Your task to perform on an android device: Go to Google maps Image 0: 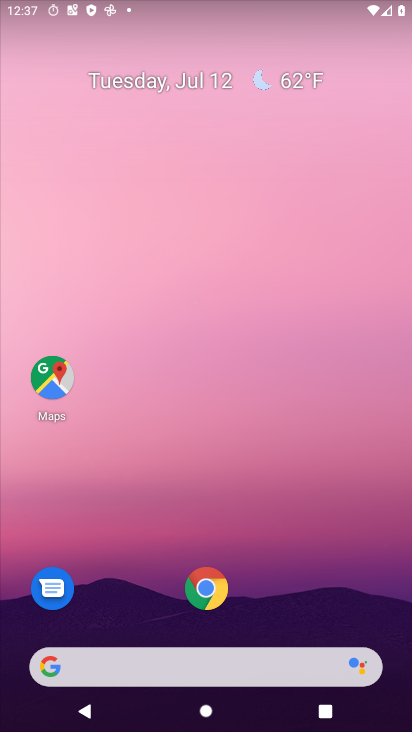
Step 0: click (186, 620)
Your task to perform on an android device: Go to Google maps Image 1: 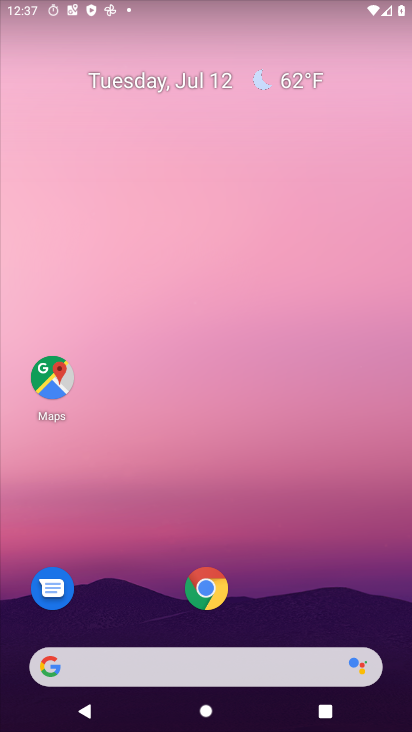
Step 1: click (98, 576)
Your task to perform on an android device: Go to Google maps Image 2: 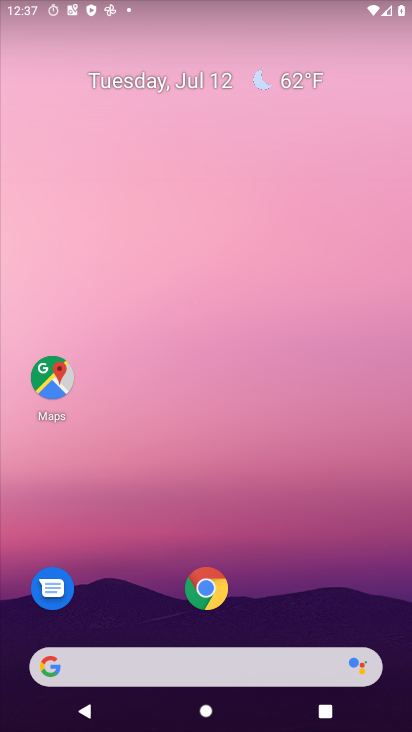
Step 2: click (45, 381)
Your task to perform on an android device: Go to Google maps Image 3: 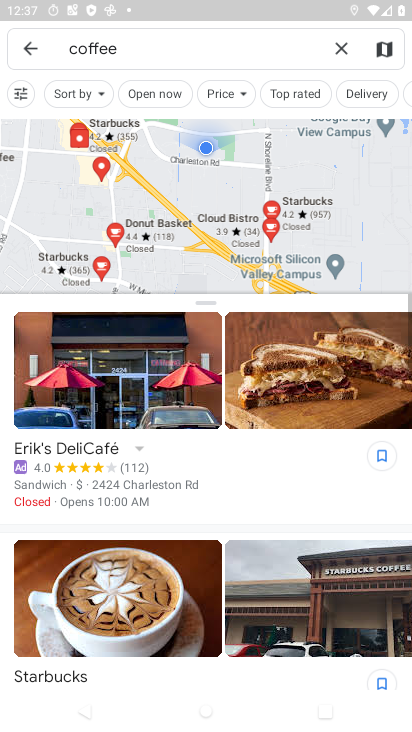
Step 3: task complete